Your task to perform on an android device: turn on priority inbox in the gmail app Image 0: 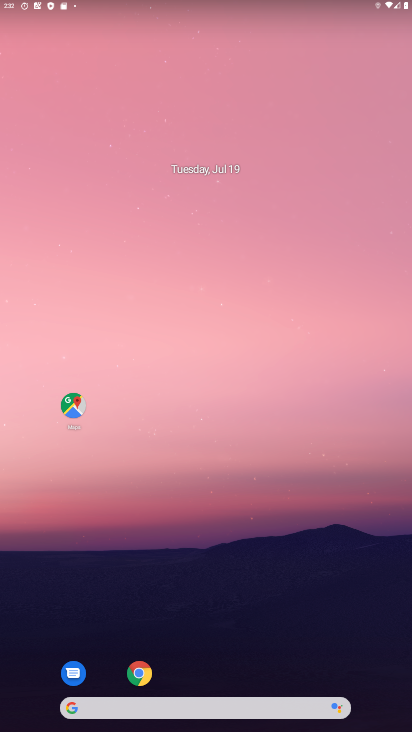
Step 0: drag from (223, 661) to (230, 5)
Your task to perform on an android device: turn on priority inbox in the gmail app Image 1: 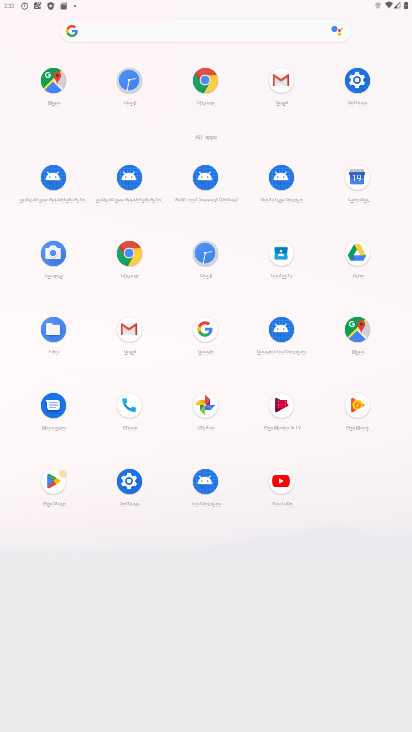
Step 1: click (123, 350)
Your task to perform on an android device: turn on priority inbox in the gmail app Image 2: 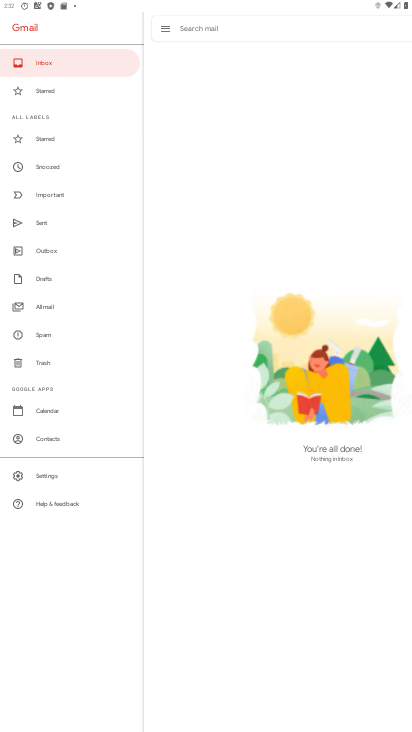
Step 2: click (47, 479)
Your task to perform on an android device: turn on priority inbox in the gmail app Image 3: 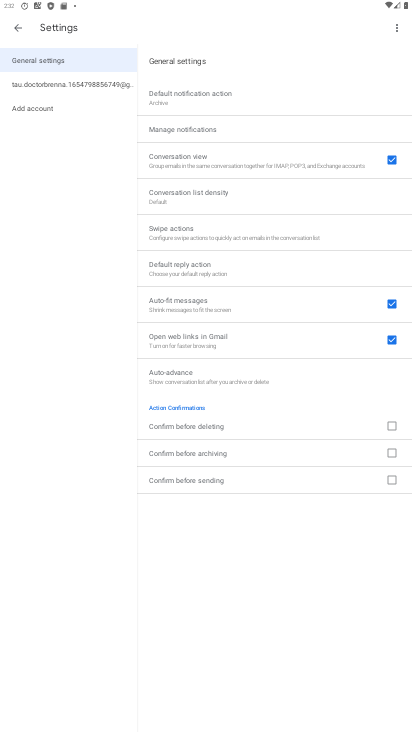
Step 3: click (92, 90)
Your task to perform on an android device: turn on priority inbox in the gmail app Image 4: 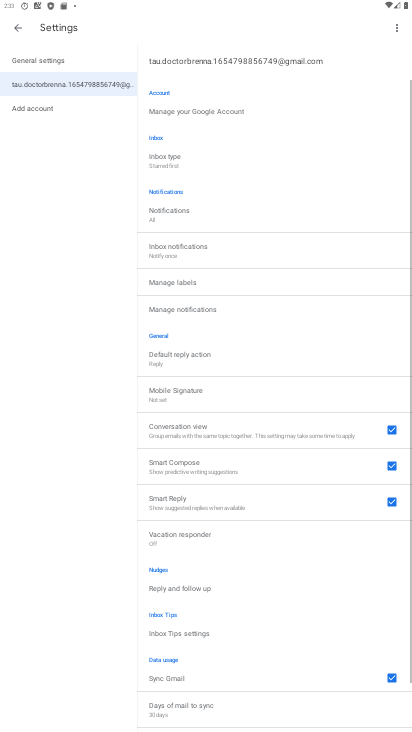
Step 4: click (189, 164)
Your task to perform on an android device: turn on priority inbox in the gmail app Image 5: 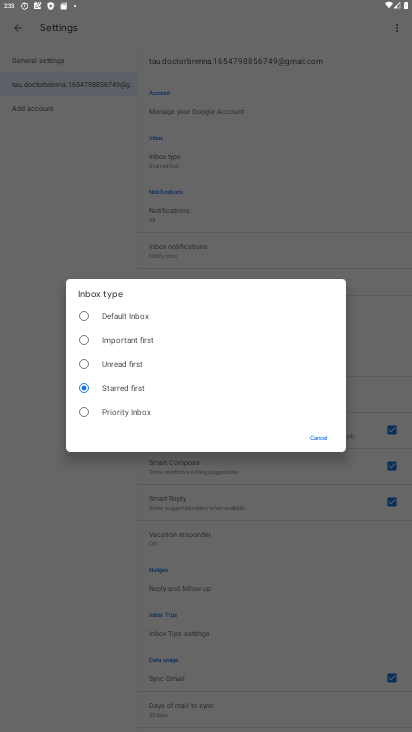
Step 5: click (112, 414)
Your task to perform on an android device: turn on priority inbox in the gmail app Image 6: 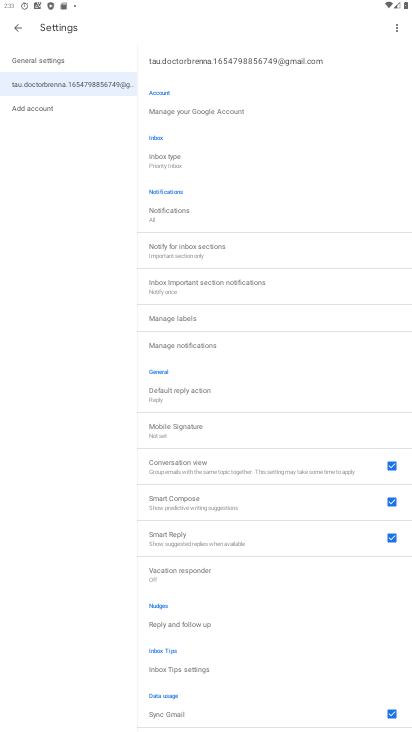
Step 6: task complete